Your task to perform on an android device: Search for logitech g pro on target.com, select the first entry, and add it to the cart. Image 0: 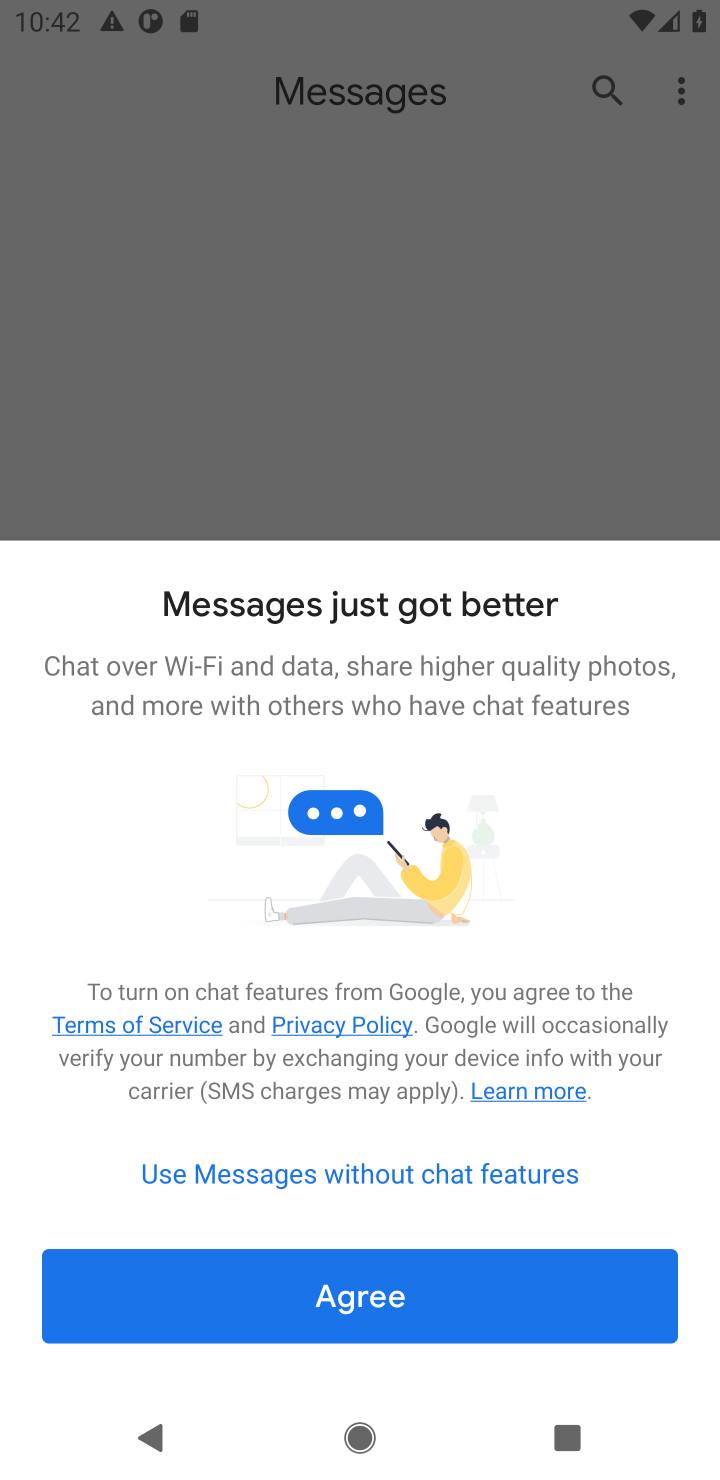
Step 0: press home button
Your task to perform on an android device: Search for logitech g pro on target.com, select the first entry, and add it to the cart. Image 1: 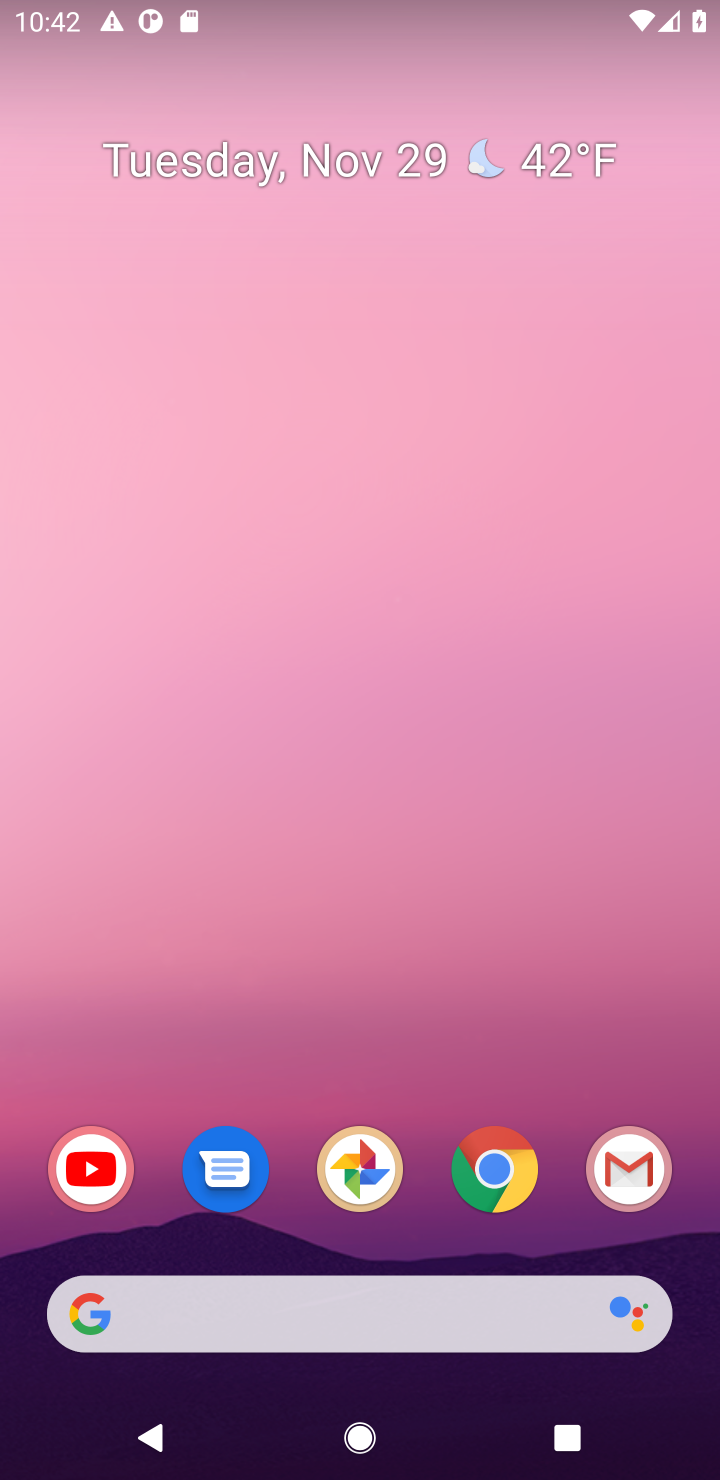
Step 1: click (185, 1312)
Your task to perform on an android device: Search for logitech g pro on target.com, select the first entry, and add it to the cart. Image 2: 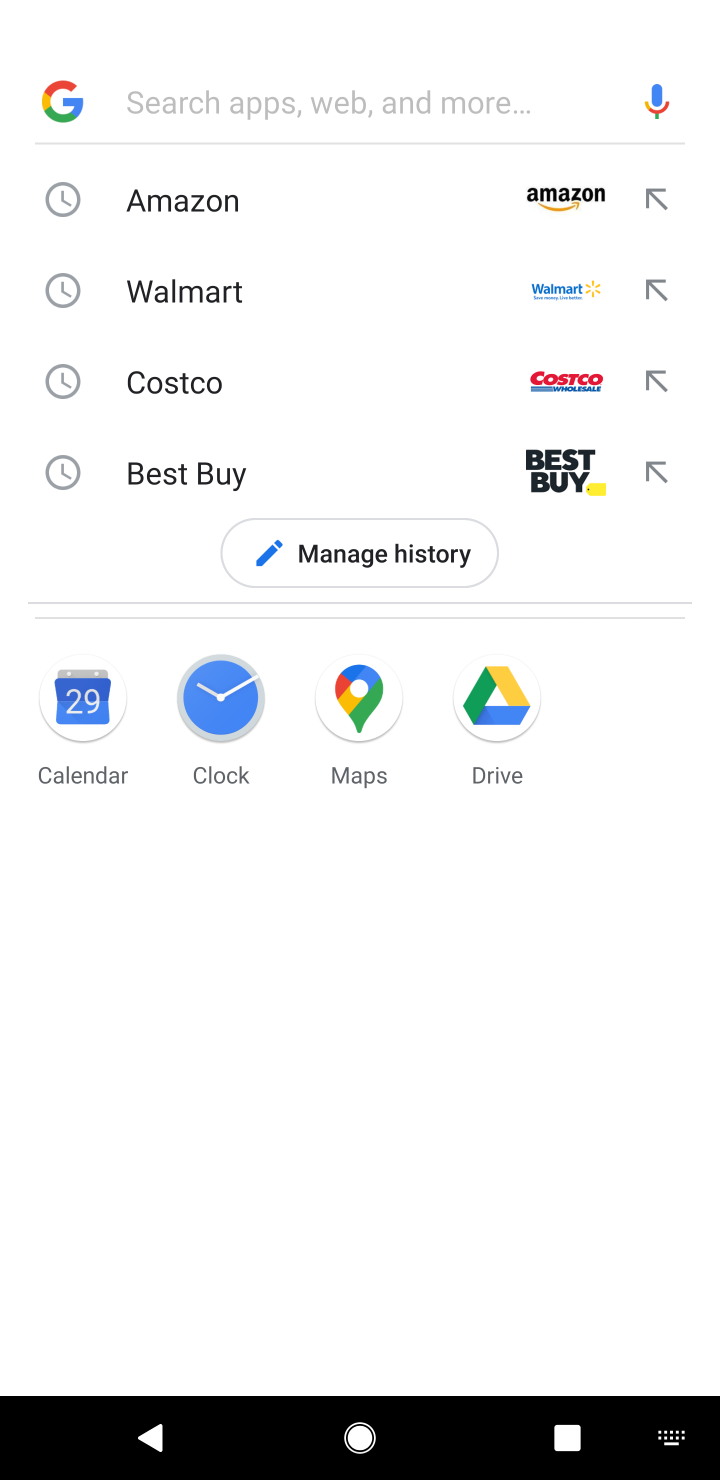
Step 2: type "target"
Your task to perform on an android device: Search for logitech g pro on target.com, select the first entry, and add it to the cart. Image 3: 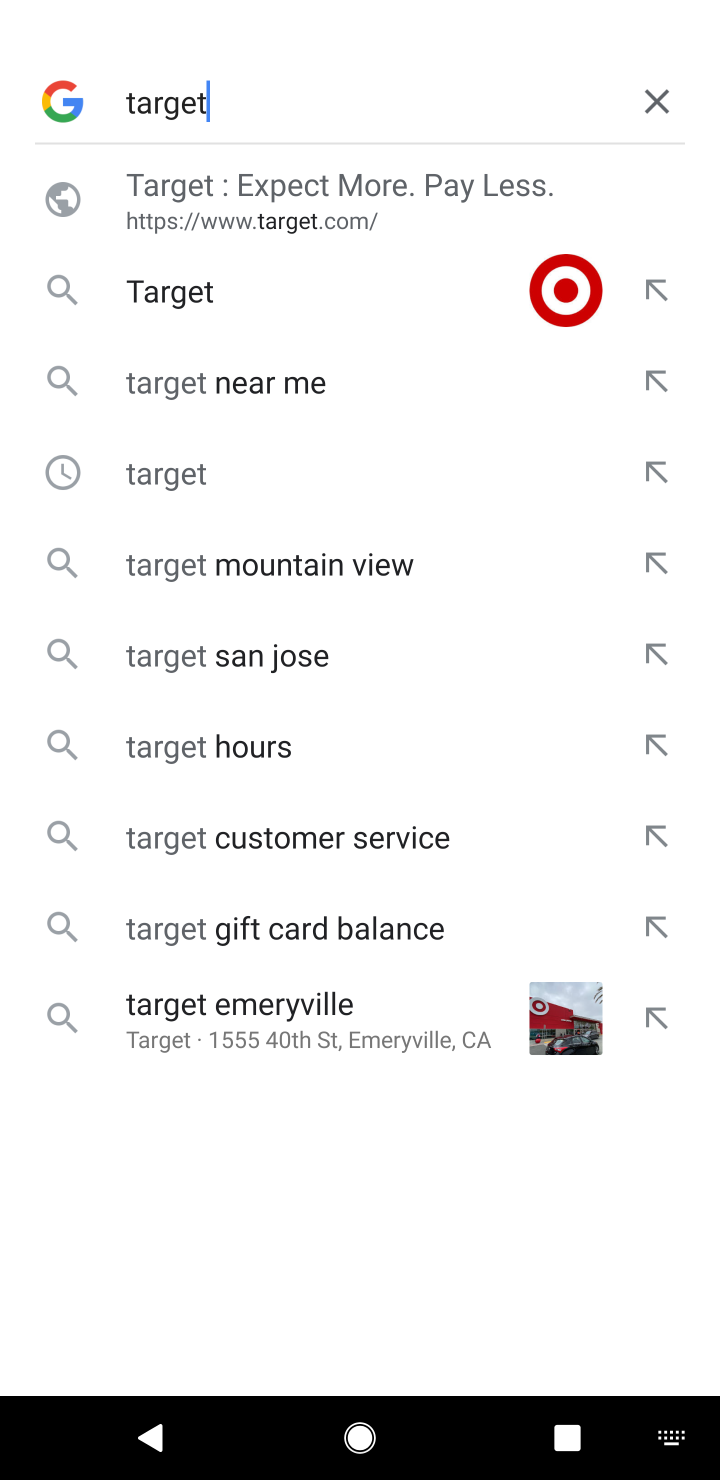
Step 3: click (202, 283)
Your task to perform on an android device: Search for logitech g pro on target.com, select the first entry, and add it to the cart. Image 4: 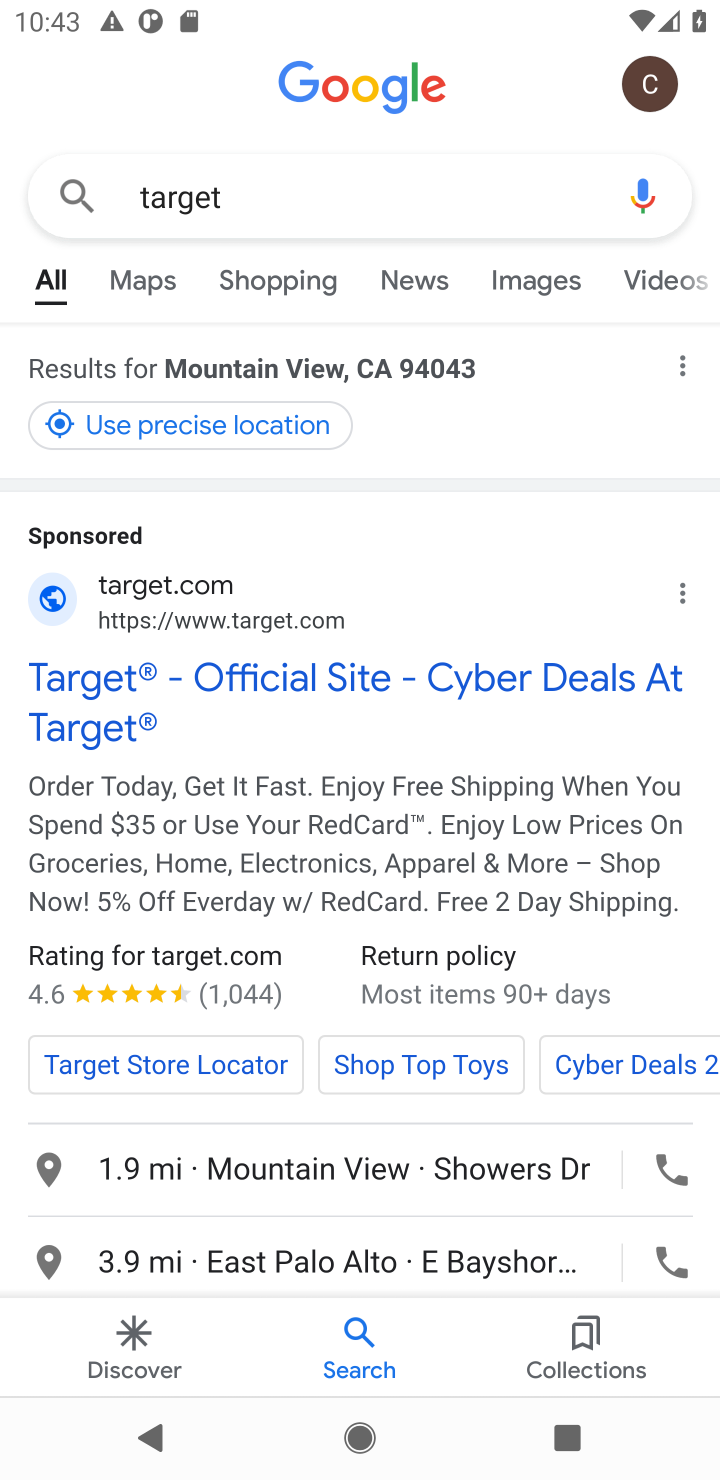
Step 4: click (187, 730)
Your task to perform on an android device: Search for logitech g pro on target.com, select the first entry, and add it to the cart. Image 5: 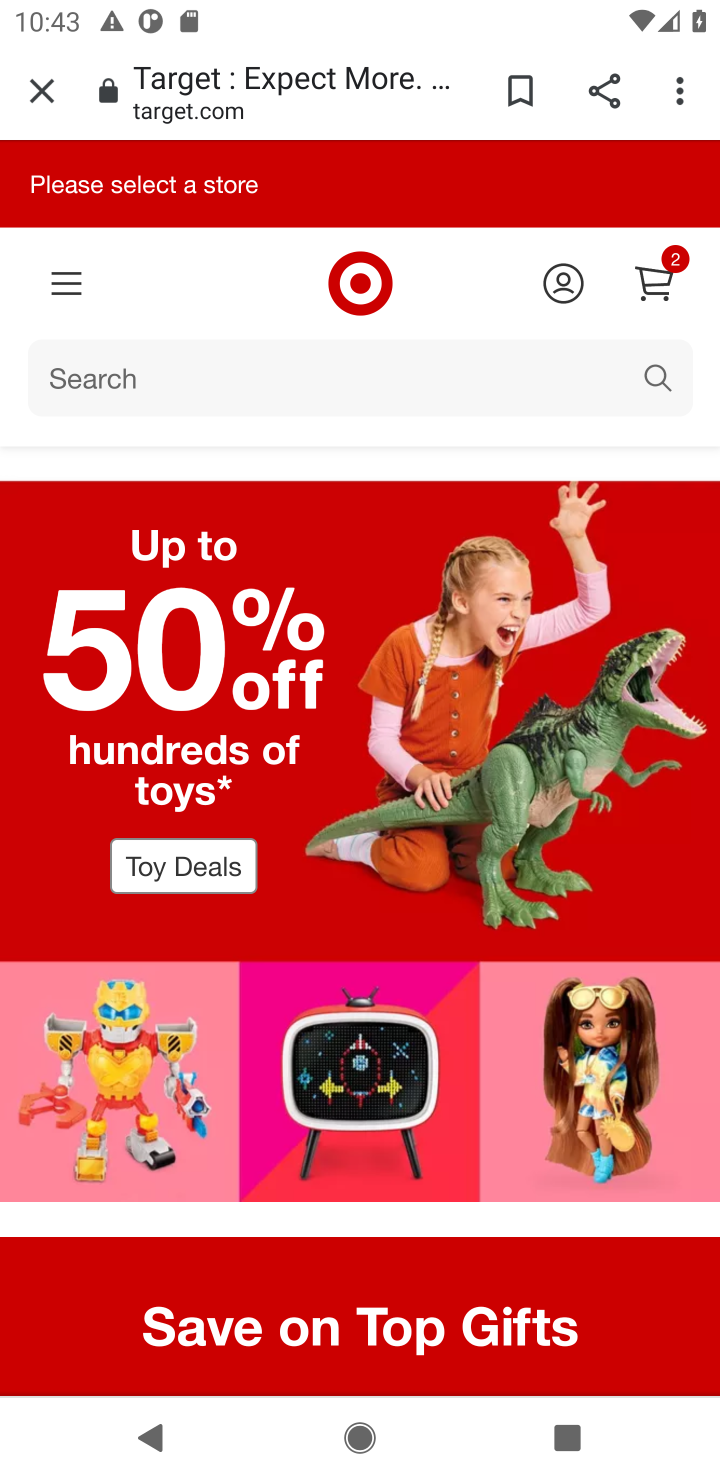
Step 5: click (224, 363)
Your task to perform on an android device: Search for logitech g pro on target.com, select the first entry, and add it to the cart. Image 6: 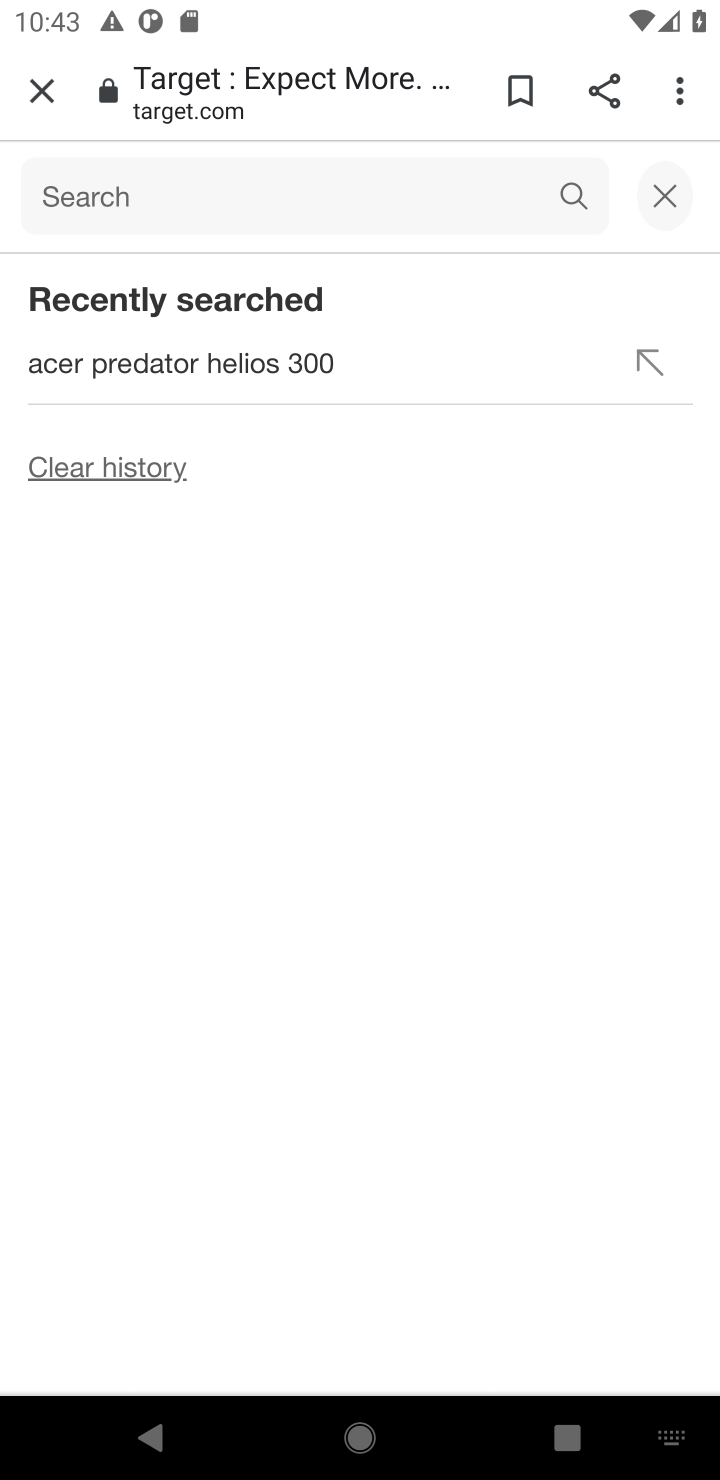
Step 6: type "logittech g pro"
Your task to perform on an android device: Search for logitech g pro on target.com, select the first entry, and add it to the cart. Image 7: 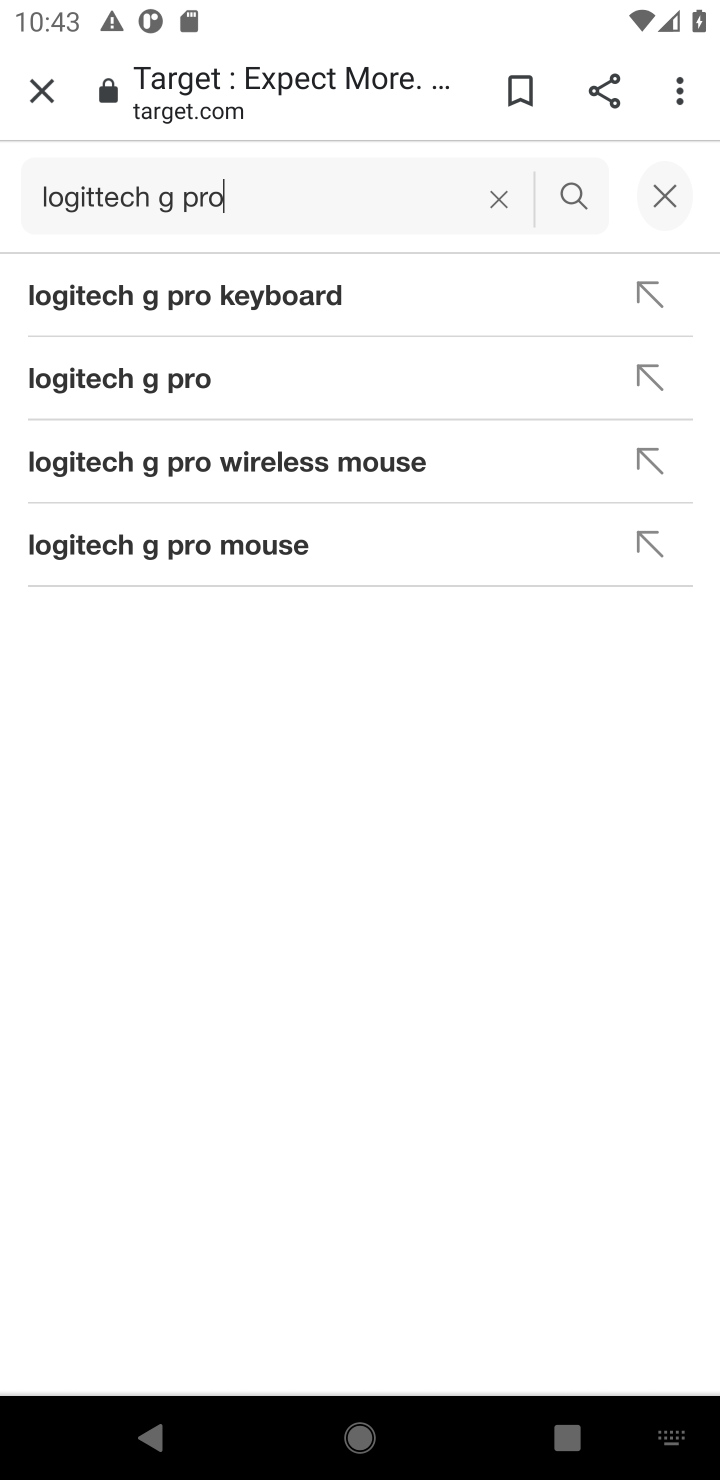
Step 7: click (80, 213)
Your task to perform on an android device: Search for logitech g pro on target.com, select the first entry, and add it to the cart. Image 8: 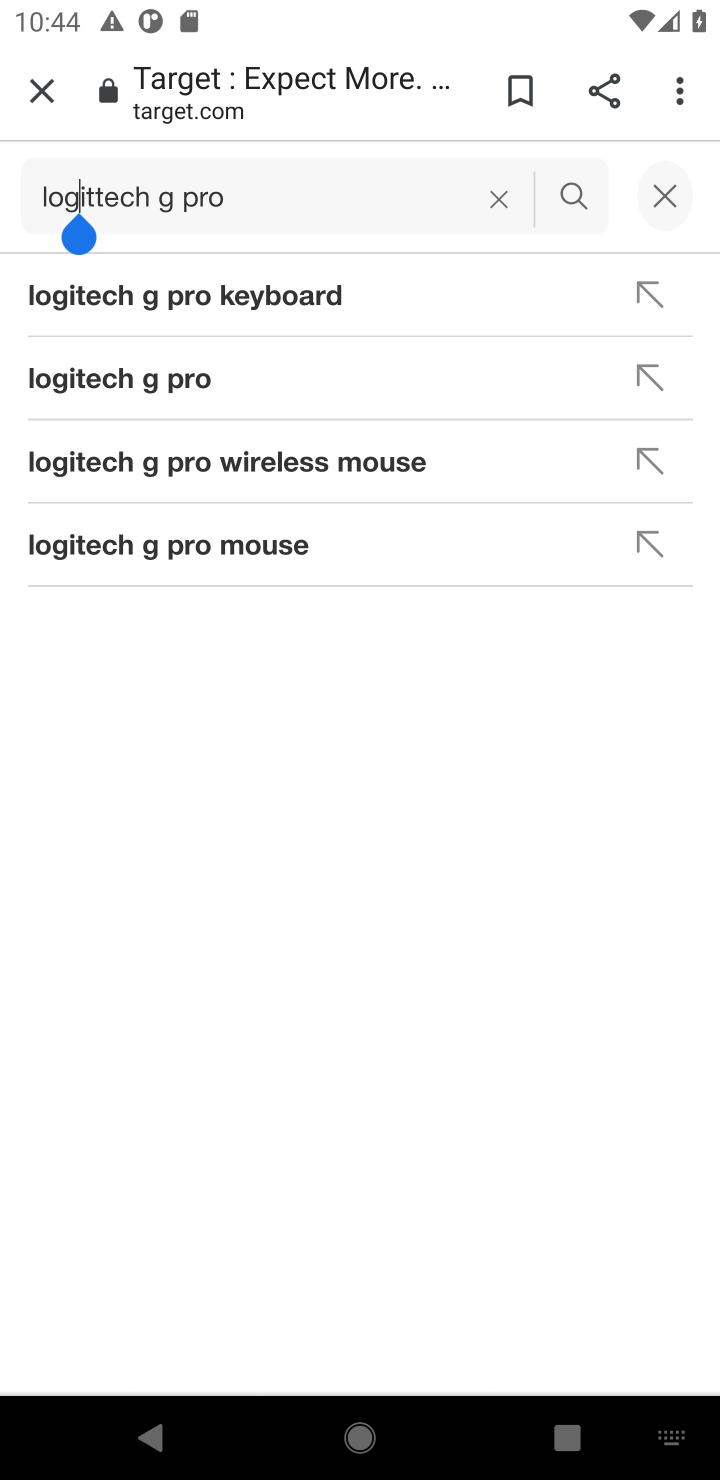
Step 8: click (576, 198)
Your task to perform on an android device: Search for logitech g pro on target.com, select the first entry, and add it to the cart. Image 9: 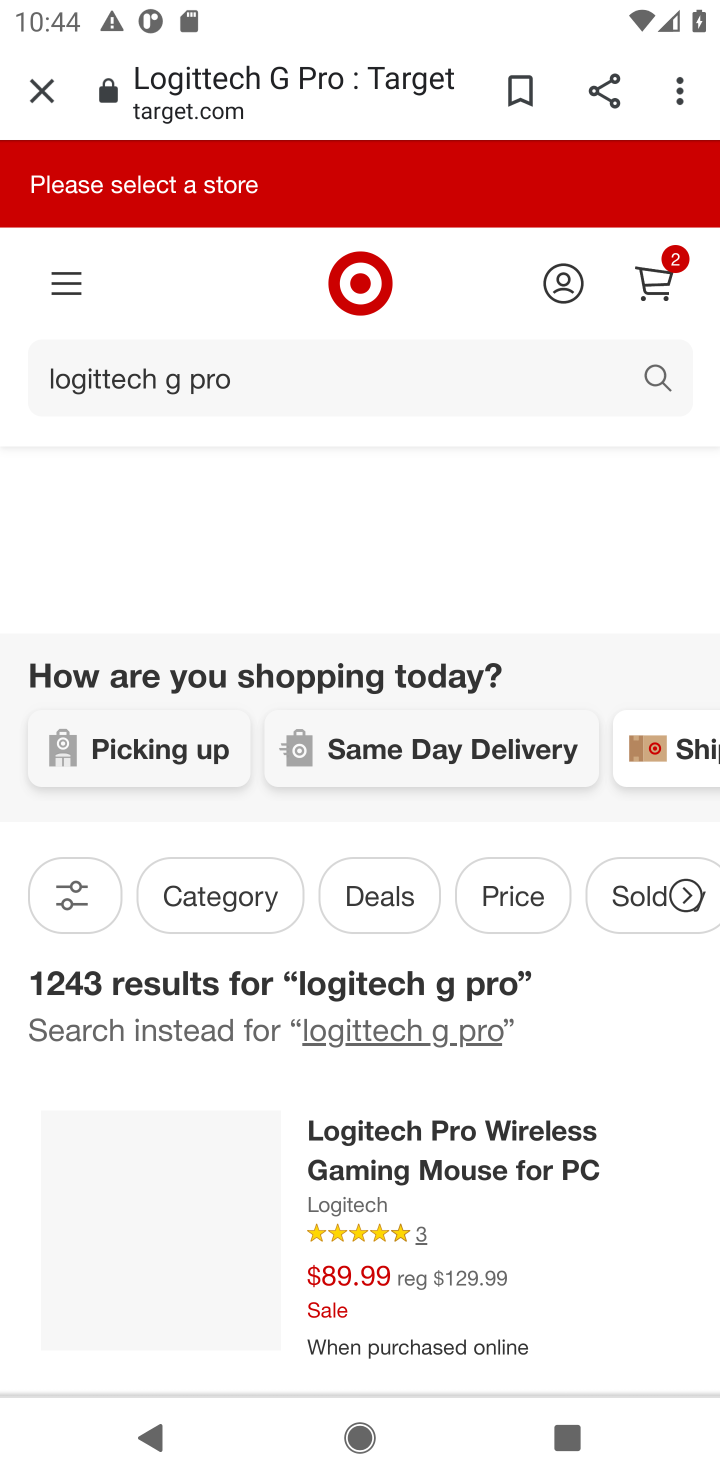
Step 9: task complete